Your task to perform on an android device: turn on showing notifications on the lock screen Image 0: 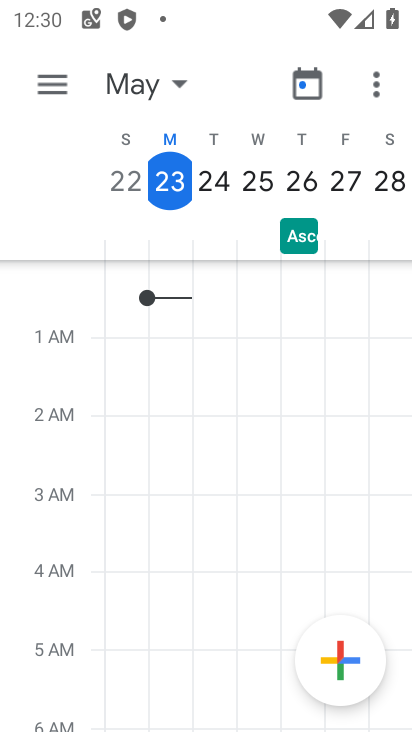
Step 0: press home button
Your task to perform on an android device: turn on showing notifications on the lock screen Image 1: 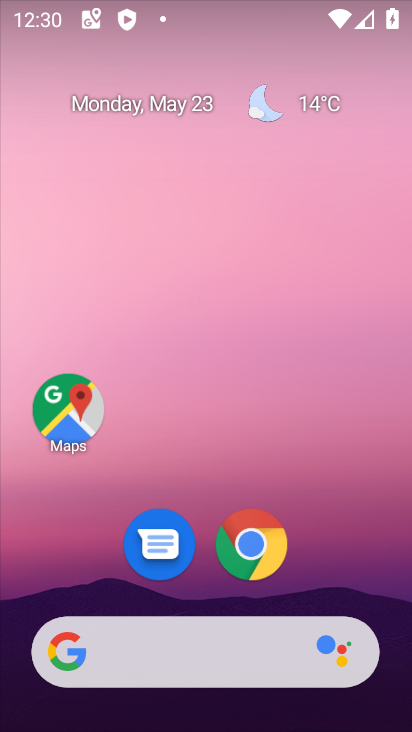
Step 1: drag from (331, 520) to (292, 125)
Your task to perform on an android device: turn on showing notifications on the lock screen Image 2: 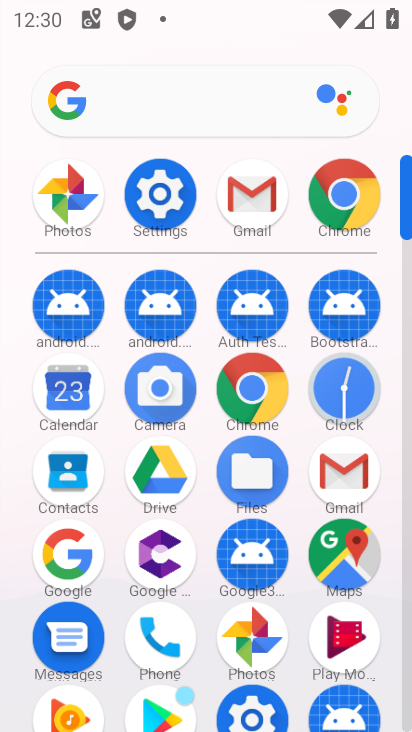
Step 2: click (152, 206)
Your task to perform on an android device: turn on showing notifications on the lock screen Image 3: 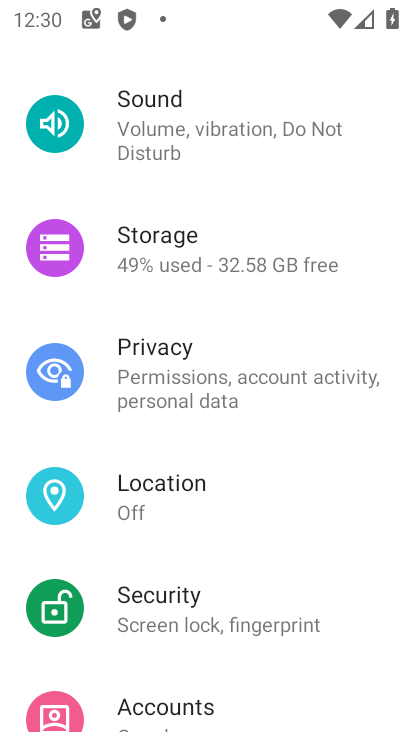
Step 3: drag from (265, 183) to (191, 677)
Your task to perform on an android device: turn on showing notifications on the lock screen Image 4: 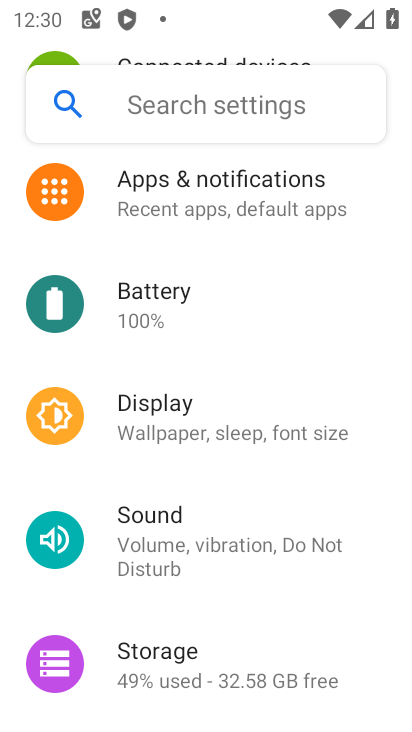
Step 4: click (197, 196)
Your task to perform on an android device: turn on showing notifications on the lock screen Image 5: 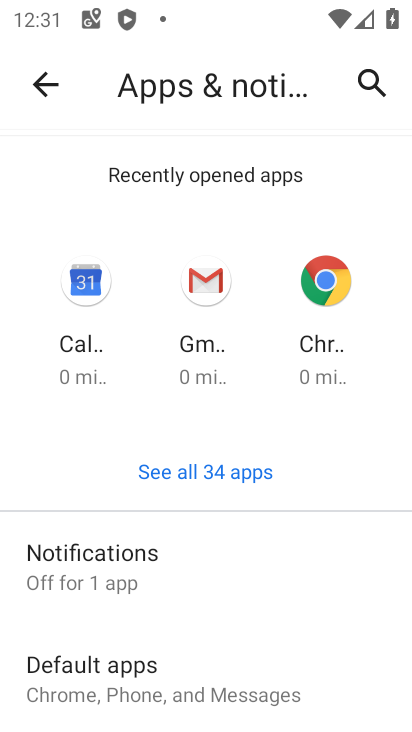
Step 5: click (103, 584)
Your task to perform on an android device: turn on showing notifications on the lock screen Image 6: 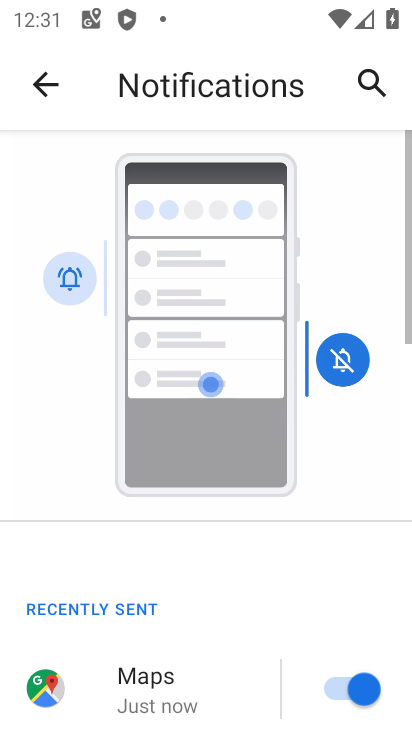
Step 6: drag from (268, 634) to (263, 78)
Your task to perform on an android device: turn on showing notifications on the lock screen Image 7: 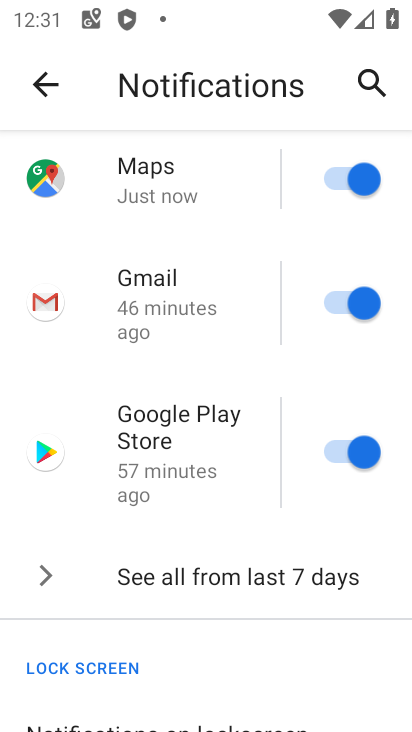
Step 7: drag from (191, 688) to (241, 223)
Your task to perform on an android device: turn on showing notifications on the lock screen Image 8: 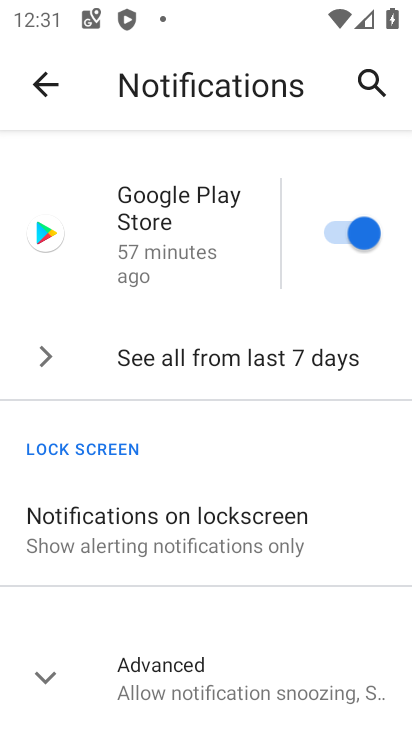
Step 8: click (203, 525)
Your task to perform on an android device: turn on showing notifications on the lock screen Image 9: 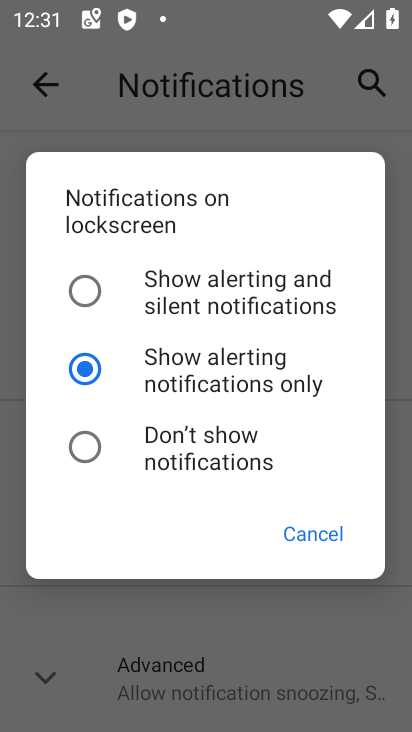
Step 9: task complete